Your task to perform on an android device: Open wifi settings Image 0: 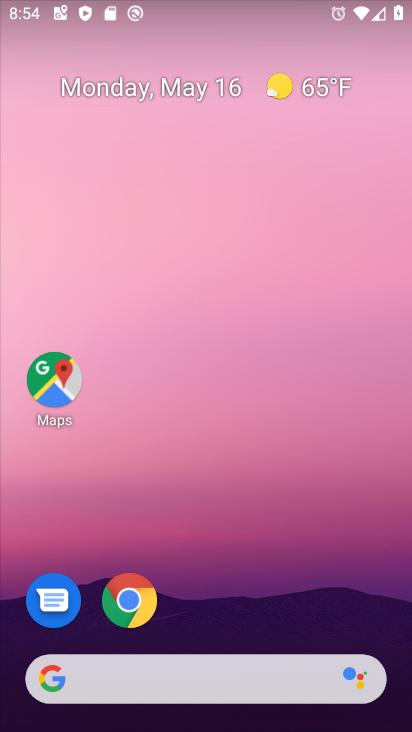
Step 0: drag from (223, 640) to (279, 10)
Your task to perform on an android device: Open wifi settings Image 1: 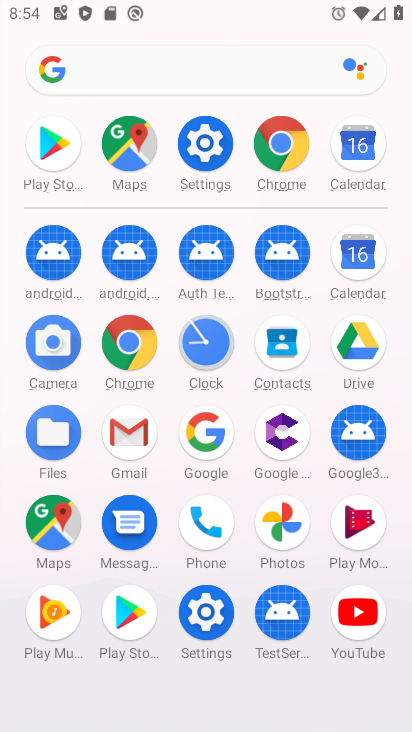
Step 1: click (203, 148)
Your task to perform on an android device: Open wifi settings Image 2: 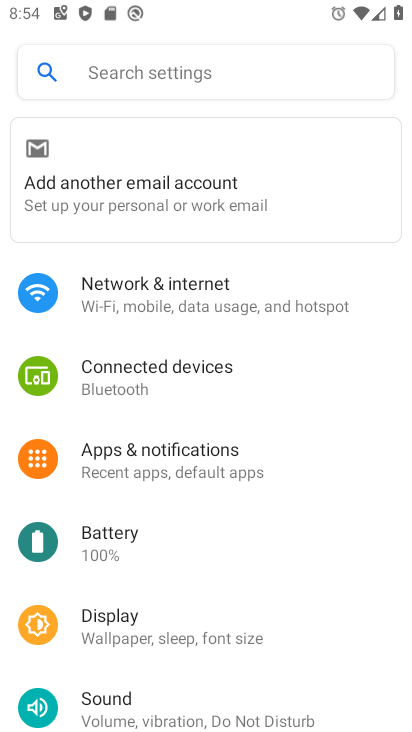
Step 2: click (204, 301)
Your task to perform on an android device: Open wifi settings Image 3: 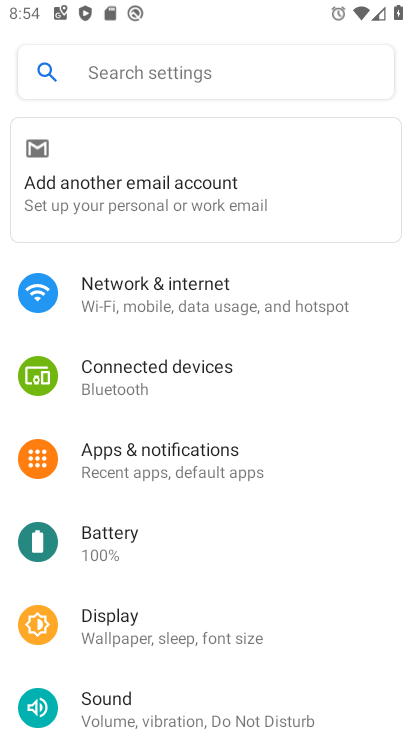
Step 3: click (204, 301)
Your task to perform on an android device: Open wifi settings Image 4: 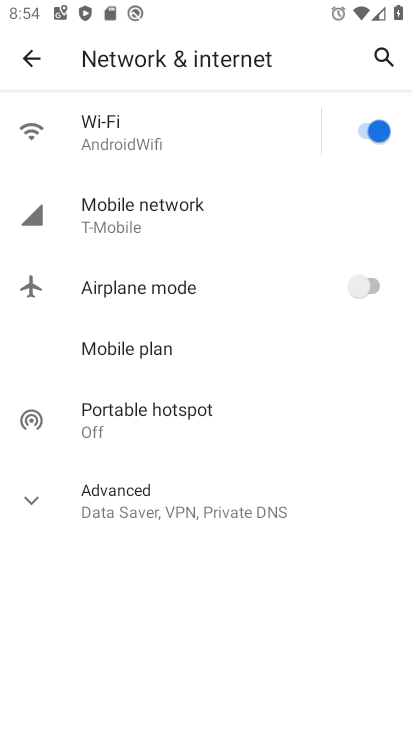
Step 4: click (196, 135)
Your task to perform on an android device: Open wifi settings Image 5: 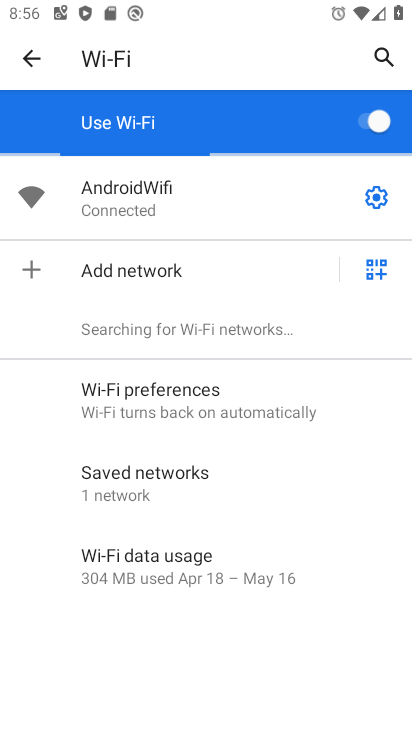
Step 5: click (392, 192)
Your task to perform on an android device: Open wifi settings Image 6: 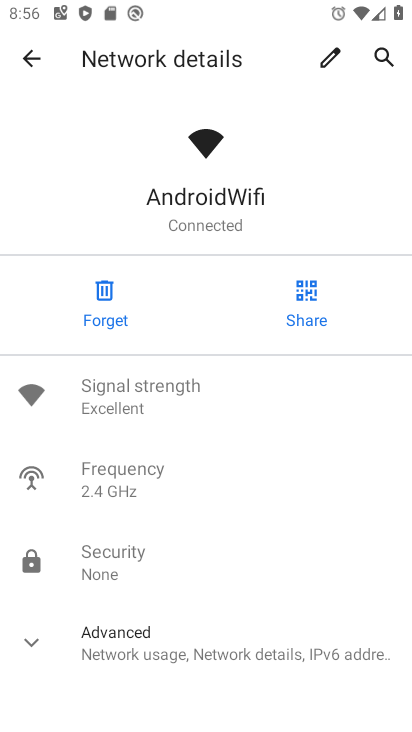
Step 6: task complete